Your task to perform on an android device: Go to CNN.com Image 0: 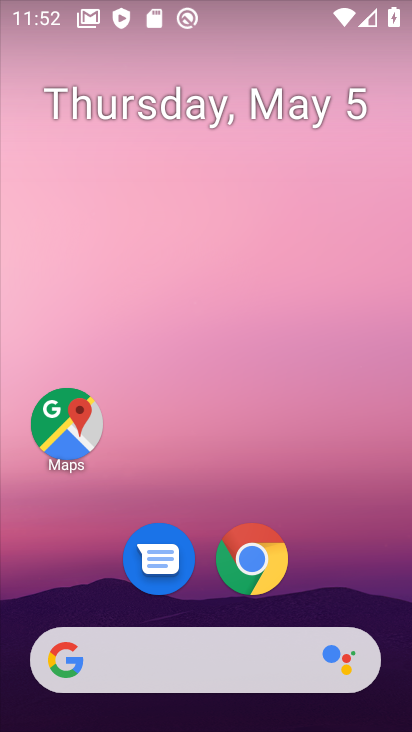
Step 0: click (271, 558)
Your task to perform on an android device: Go to CNN.com Image 1: 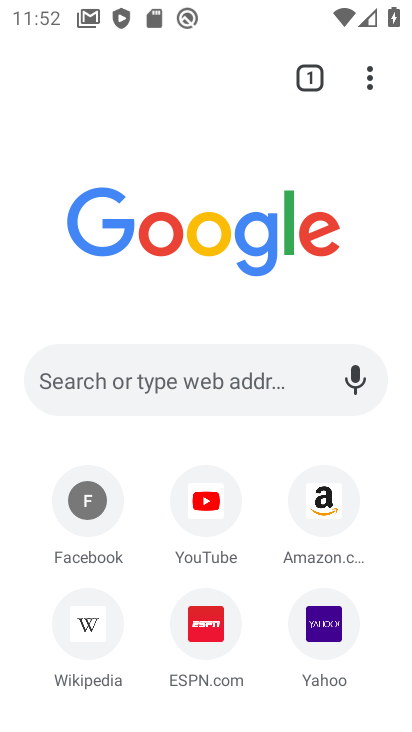
Step 1: click (194, 401)
Your task to perform on an android device: Go to CNN.com Image 2: 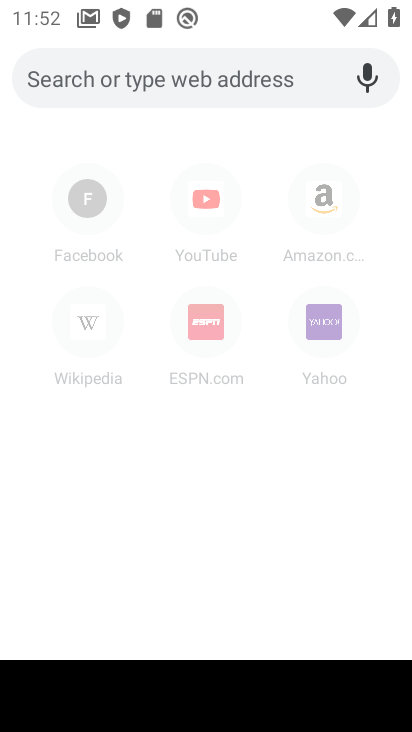
Step 2: type "CNN.com"
Your task to perform on an android device: Go to CNN.com Image 3: 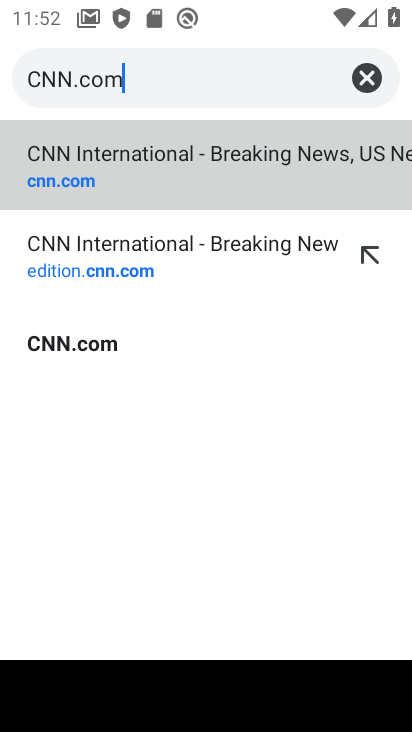
Step 3: click (180, 173)
Your task to perform on an android device: Go to CNN.com Image 4: 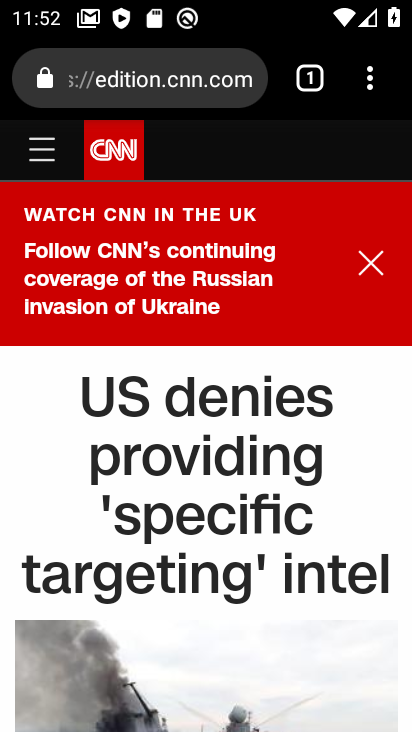
Step 4: task complete